Your task to perform on an android device: Open network settings Image 0: 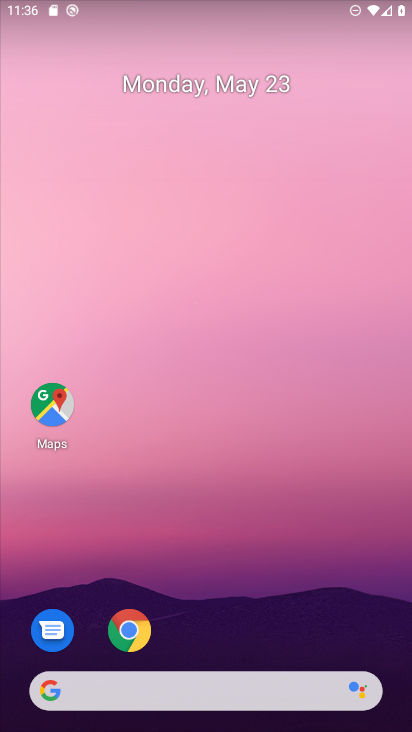
Step 0: drag from (192, 645) to (210, 149)
Your task to perform on an android device: Open network settings Image 1: 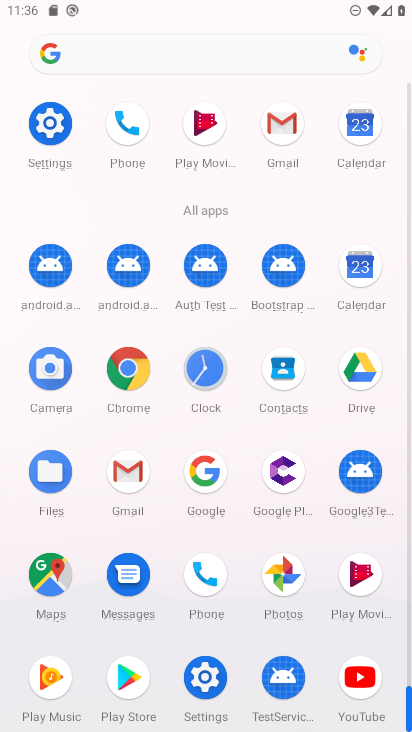
Step 1: click (47, 123)
Your task to perform on an android device: Open network settings Image 2: 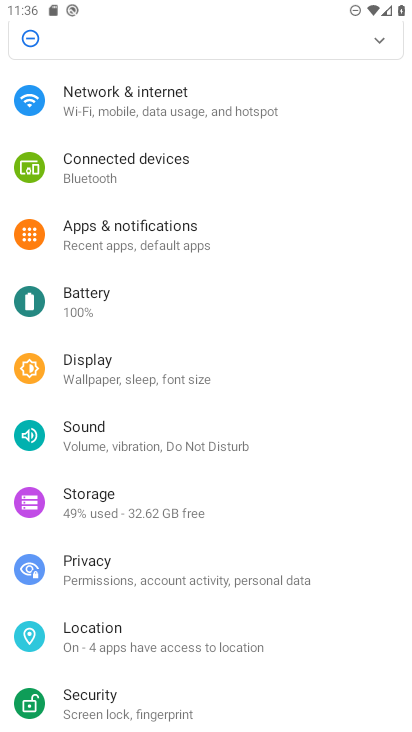
Step 2: click (147, 101)
Your task to perform on an android device: Open network settings Image 3: 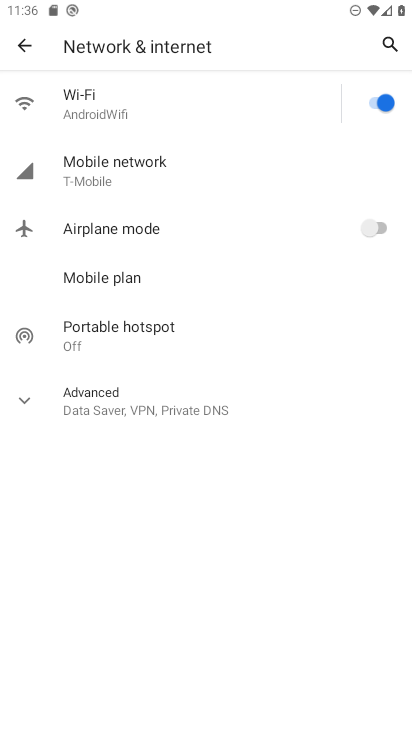
Step 3: click (168, 169)
Your task to perform on an android device: Open network settings Image 4: 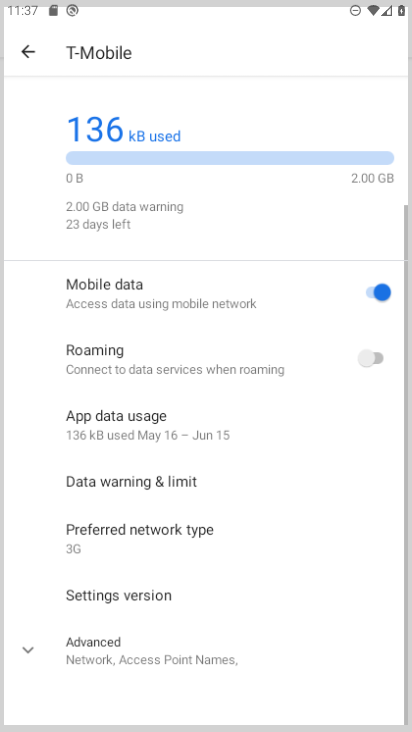
Step 4: task complete